Your task to perform on an android device: Open battery settings Image 0: 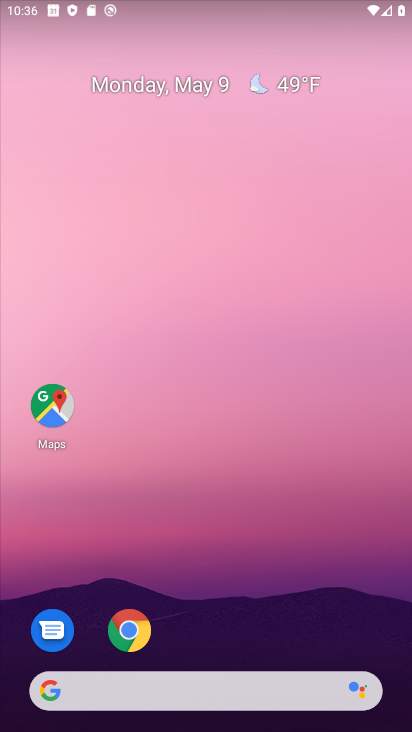
Step 0: drag from (239, 621) to (259, 66)
Your task to perform on an android device: Open battery settings Image 1: 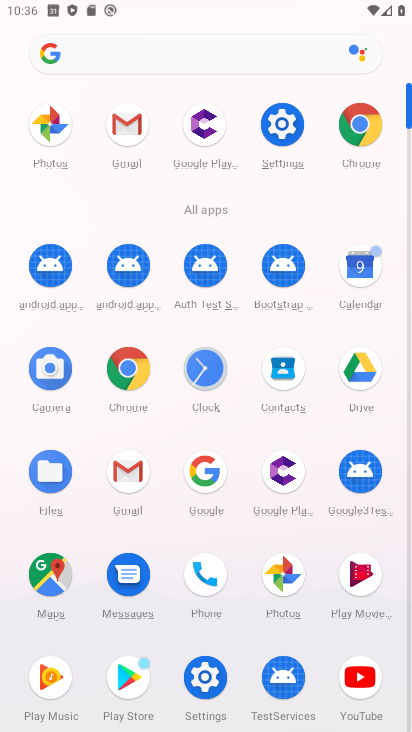
Step 1: click (267, 108)
Your task to perform on an android device: Open battery settings Image 2: 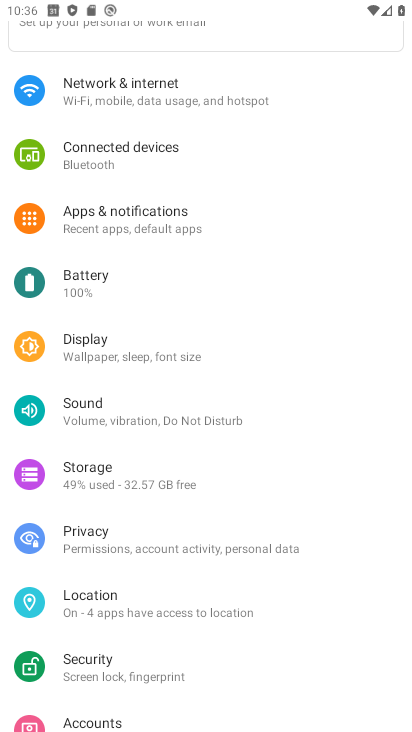
Step 2: click (120, 281)
Your task to perform on an android device: Open battery settings Image 3: 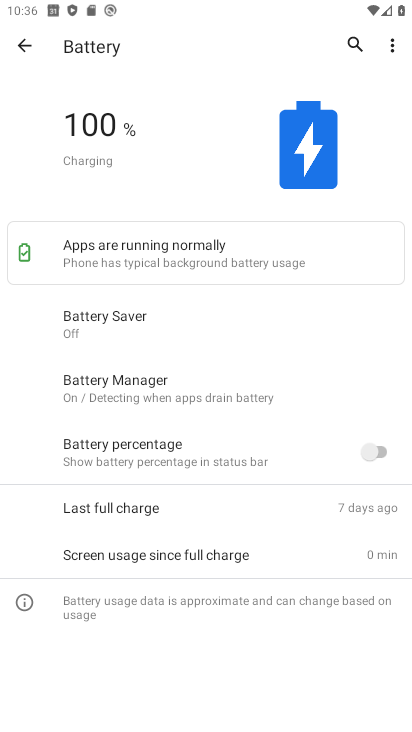
Step 3: task complete